Your task to perform on an android device: turn off improve location accuracy Image 0: 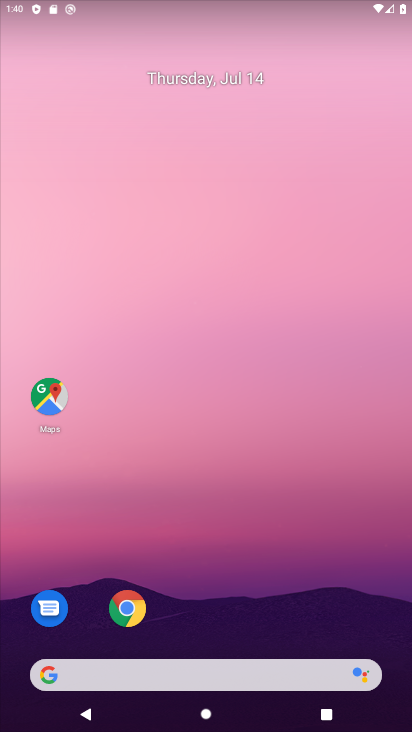
Step 0: drag from (250, 664) to (409, 164)
Your task to perform on an android device: turn off improve location accuracy Image 1: 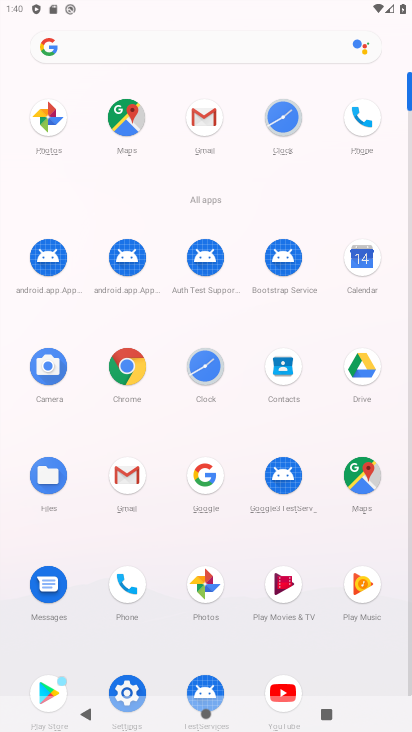
Step 1: click (127, 689)
Your task to perform on an android device: turn off improve location accuracy Image 2: 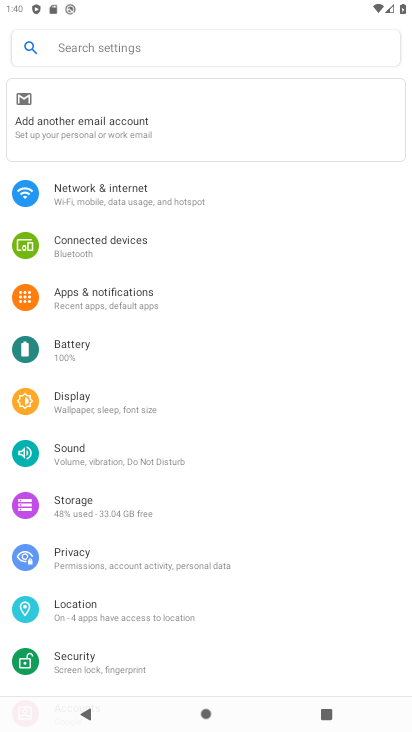
Step 2: click (86, 607)
Your task to perform on an android device: turn off improve location accuracy Image 3: 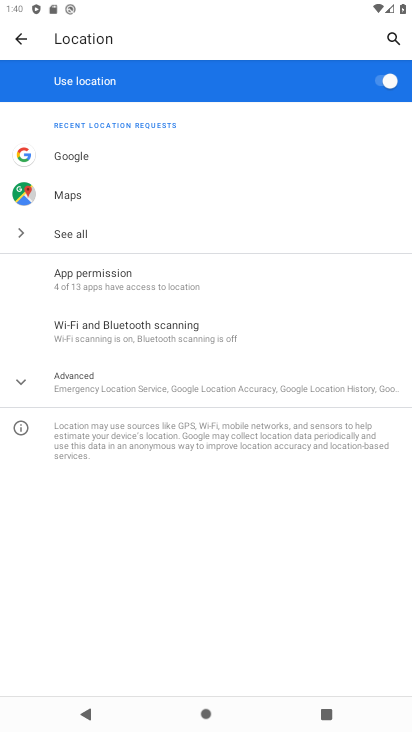
Step 3: click (187, 391)
Your task to perform on an android device: turn off improve location accuracy Image 4: 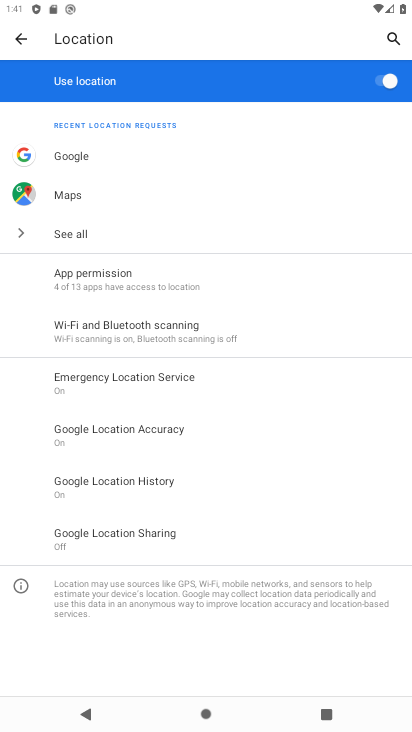
Step 4: click (160, 428)
Your task to perform on an android device: turn off improve location accuracy Image 5: 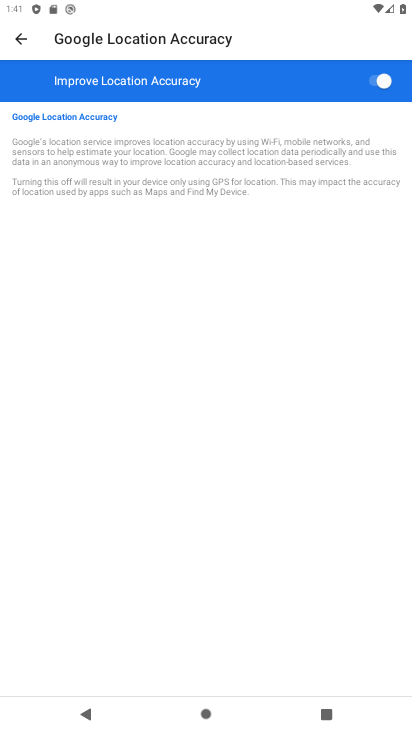
Step 5: click (376, 83)
Your task to perform on an android device: turn off improve location accuracy Image 6: 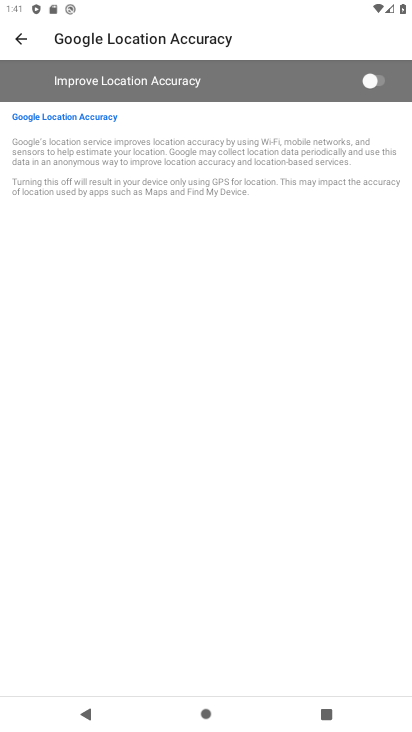
Step 6: task complete